Your task to perform on an android device: Open the Play Movies app and select the watchlist tab. Image 0: 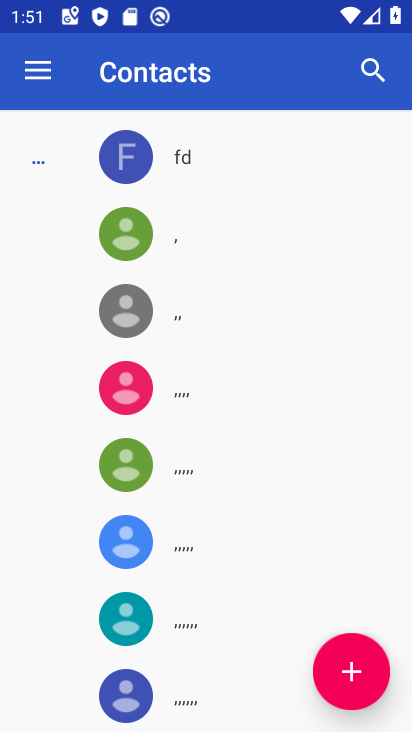
Step 0: press home button
Your task to perform on an android device: Open the Play Movies app and select the watchlist tab. Image 1: 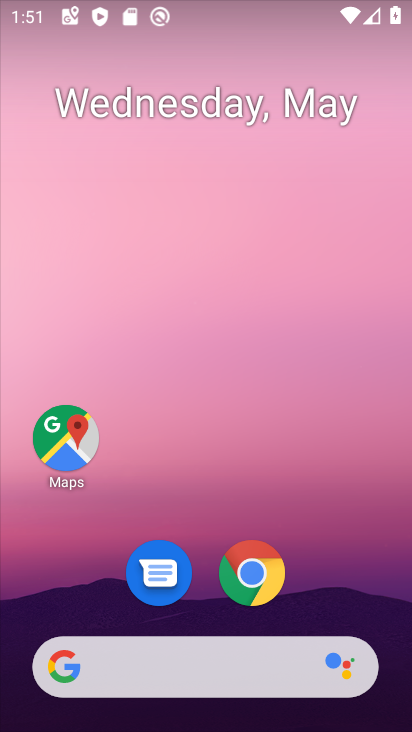
Step 1: drag from (306, 616) to (373, 26)
Your task to perform on an android device: Open the Play Movies app and select the watchlist tab. Image 2: 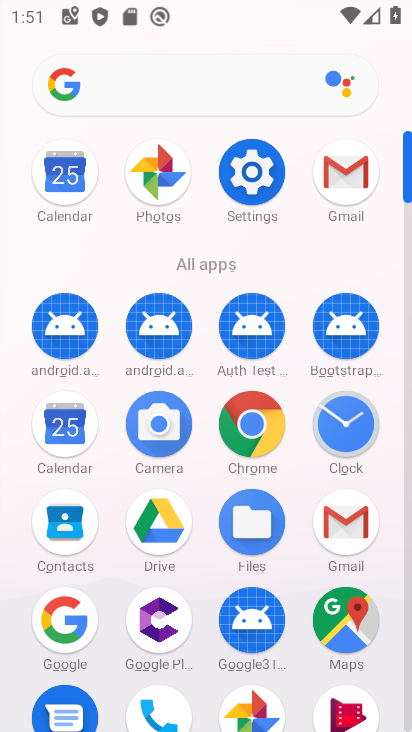
Step 2: drag from (378, 664) to (389, 287)
Your task to perform on an android device: Open the Play Movies app and select the watchlist tab. Image 3: 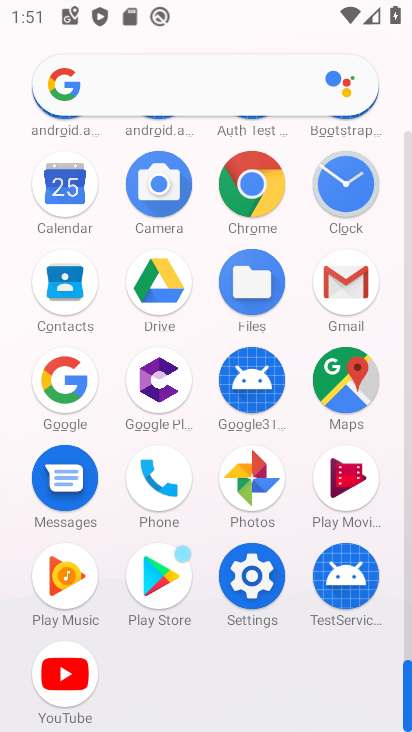
Step 3: click (354, 480)
Your task to perform on an android device: Open the Play Movies app and select the watchlist tab. Image 4: 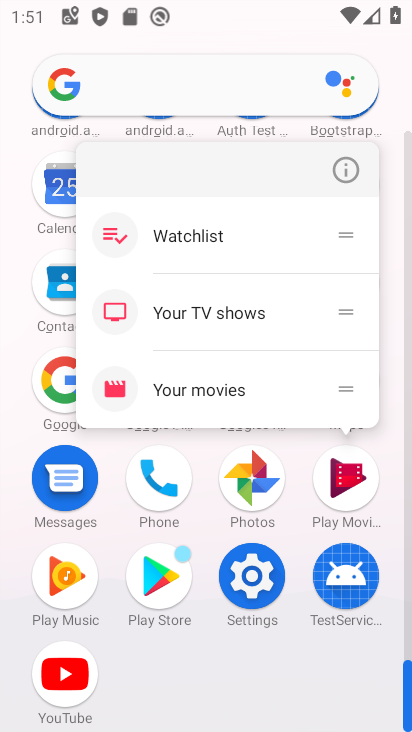
Step 4: click (354, 480)
Your task to perform on an android device: Open the Play Movies app and select the watchlist tab. Image 5: 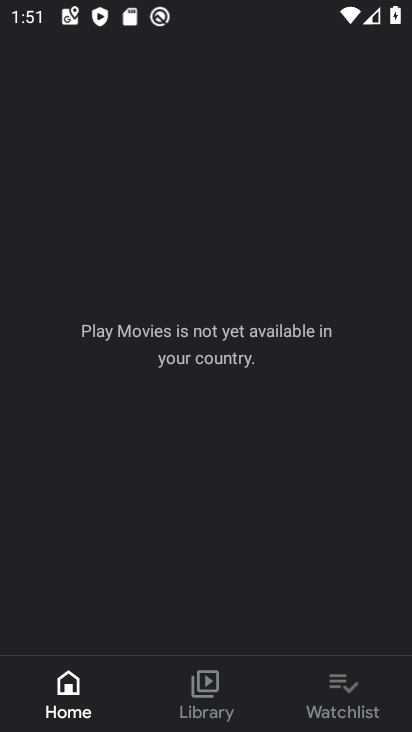
Step 5: click (366, 689)
Your task to perform on an android device: Open the Play Movies app and select the watchlist tab. Image 6: 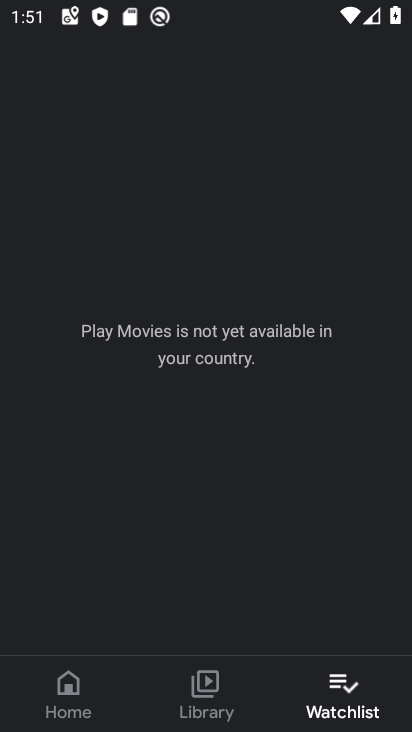
Step 6: task complete